Your task to perform on an android device: Go to CNN.com Image 0: 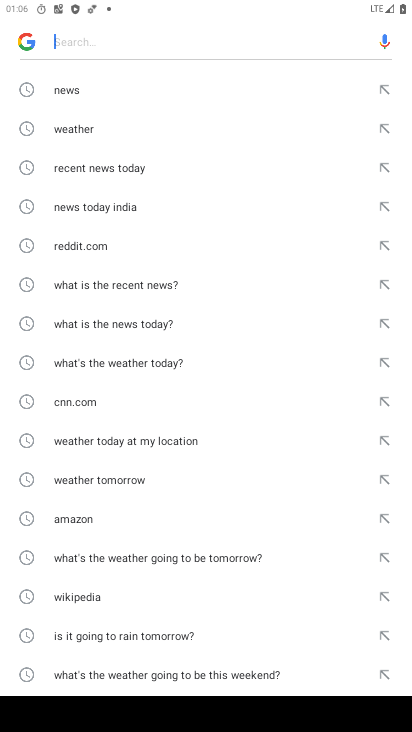
Step 0: click (94, 409)
Your task to perform on an android device: Go to CNN.com Image 1: 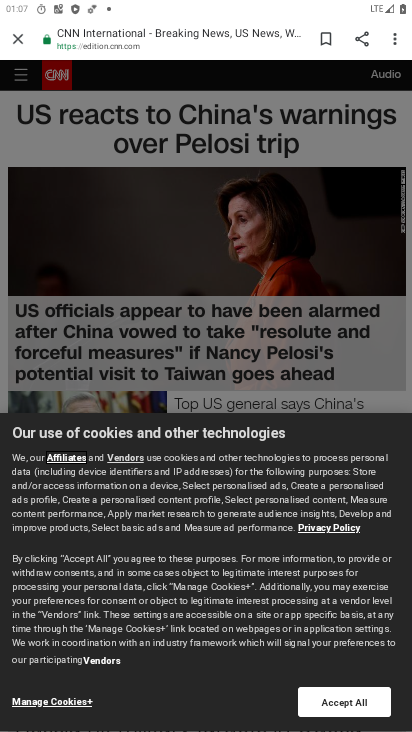
Step 1: task complete